Your task to perform on an android device: Go to eBay Image 0: 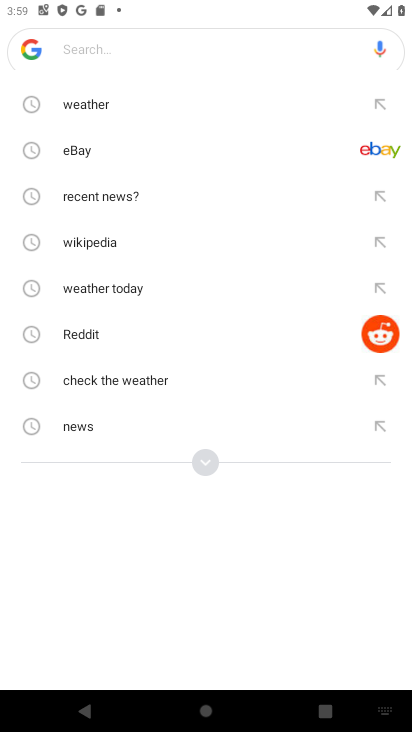
Step 0: click (78, 152)
Your task to perform on an android device: Go to eBay Image 1: 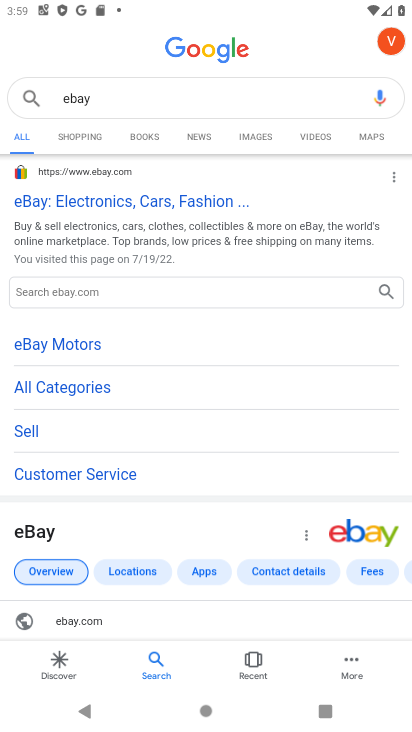
Step 1: click (76, 197)
Your task to perform on an android device: Go to eBay Image 2: 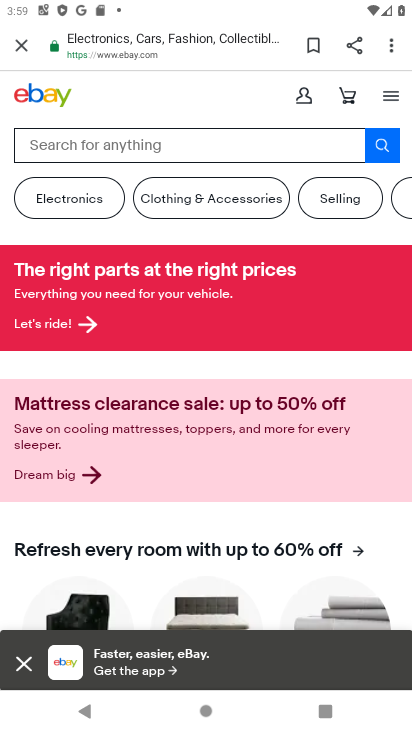
Step 2: task complete